Your task to perform on an android device: turn off sleep mode Image 0: 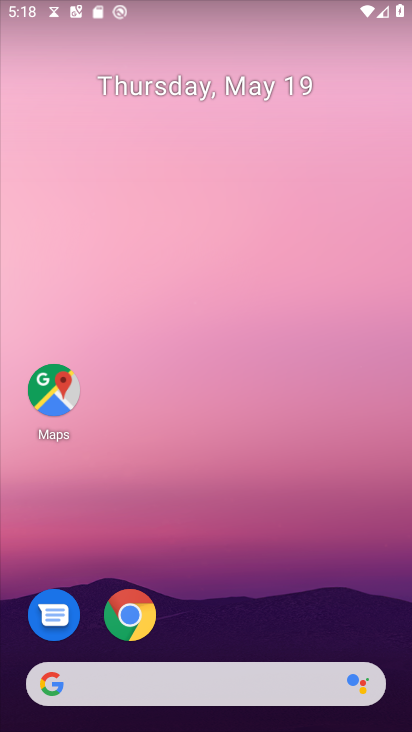
Step 0: drag from (299, 653) to (369, 107)
Your task to perform on an android device: turn off sleep mode Image 1: 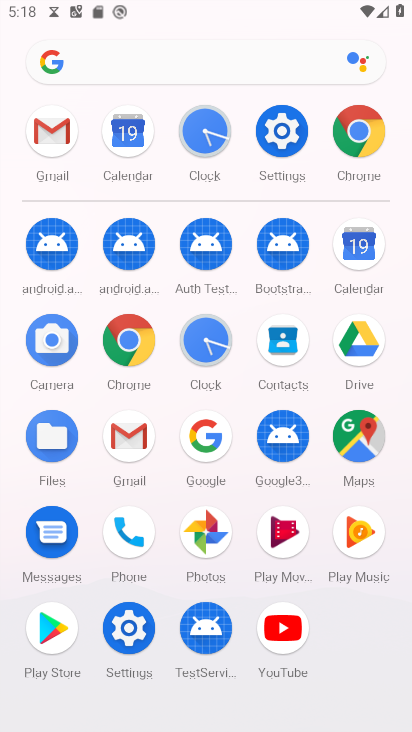
Step 1: click (297, 135)
Your task to perform on an android device: turn off sleep mode Image 2: 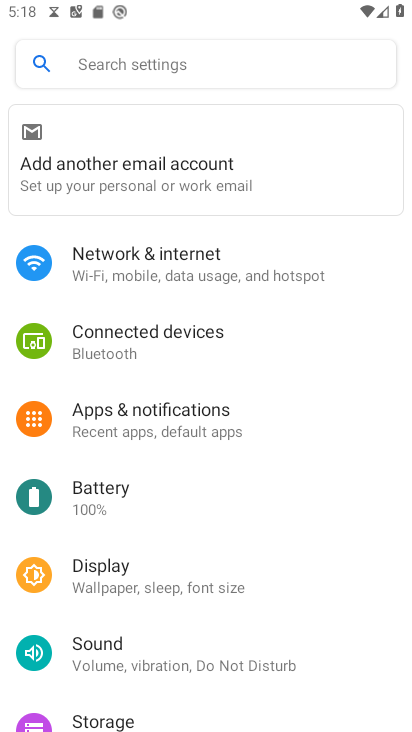
Step 2: click (150, 582)
Your task to perform on an android device: turn off sleep mode Image 3: 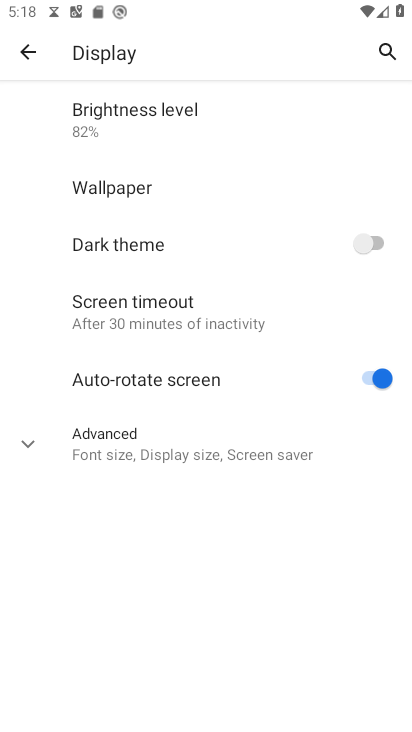
Step 3: task complete